Your task to perform on an android device: Turn on the flashlight Image 0: 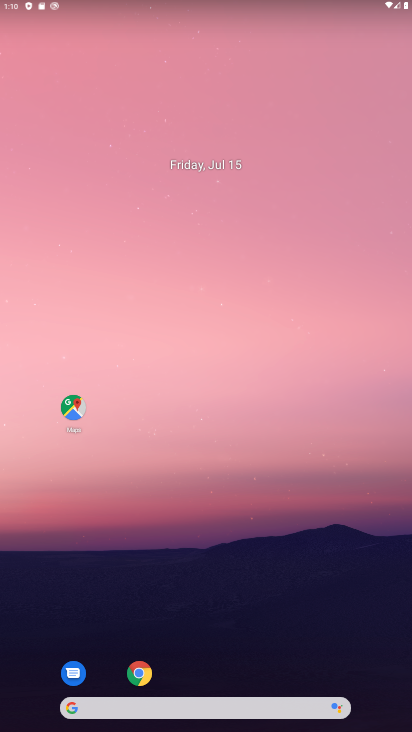
Step 0: drag from (262, 639) to (184, 133)
Your task to perform on an android device: Turn on the flashlight Image 1: 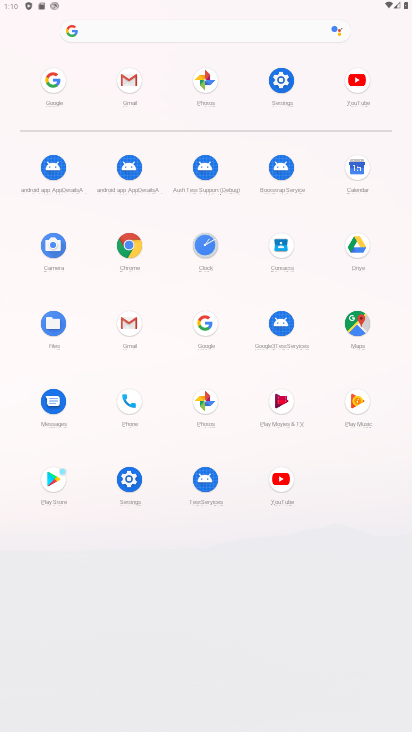
Step 1: click (278, 94)
Your task to perform on an android device: Turn on the flashlight Image 2: 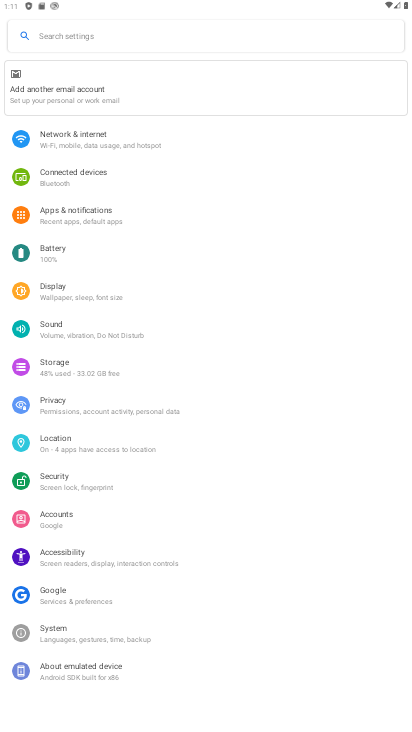
Step 2: task complete